Your task to perform on an android device: Go to settings Image 0: 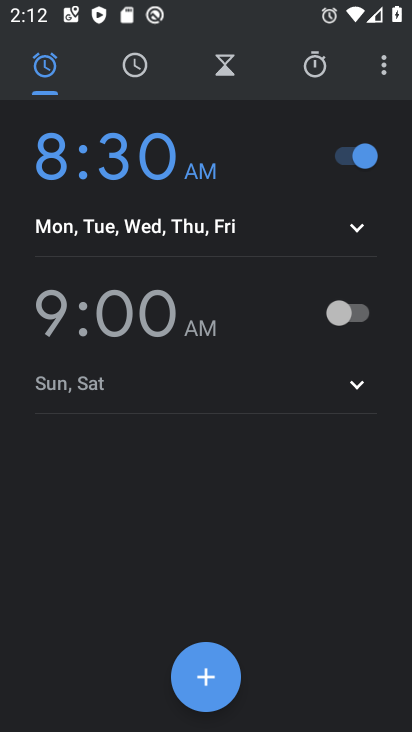
Step 0: press home button
Your task to perform on an android device: Go to settings Image 1: 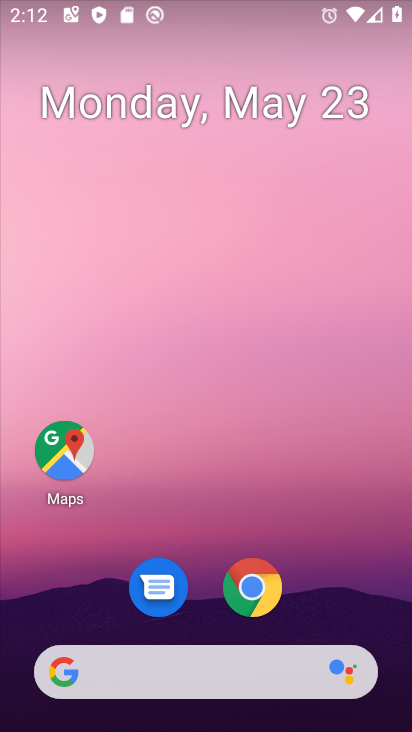
Step 1: drag from (351, 597) to (352, 325)
Your task to perform on an android device: Go to settings Image 2: 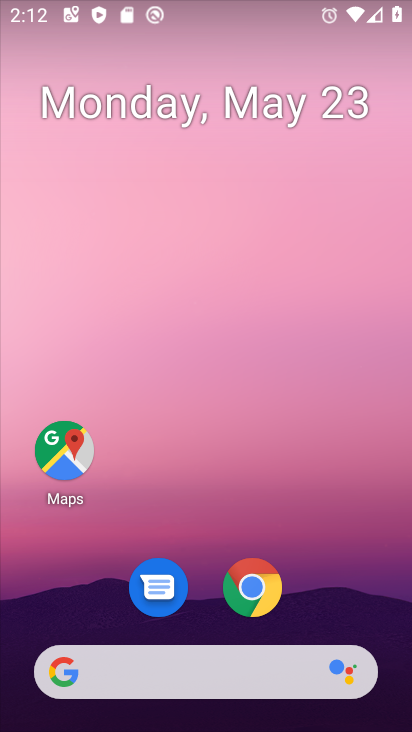
Step 2: drag from (358, 565) to (384, 0)
Your task to perform on an android device: Go to settings Image 3: 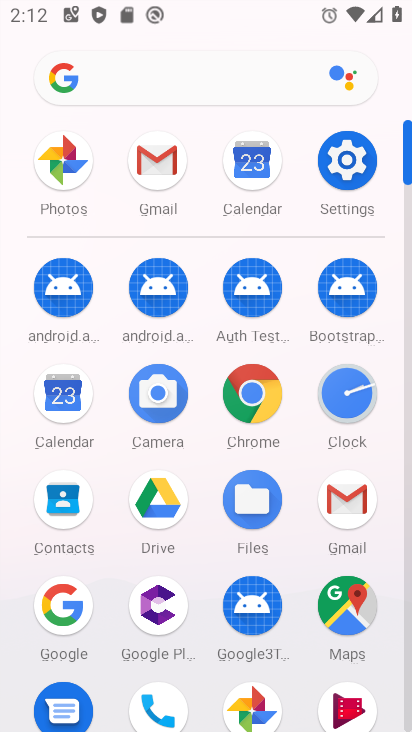
Step 3: click (353, 181)
Your task to perform on an android device: Go to settings Image 4: 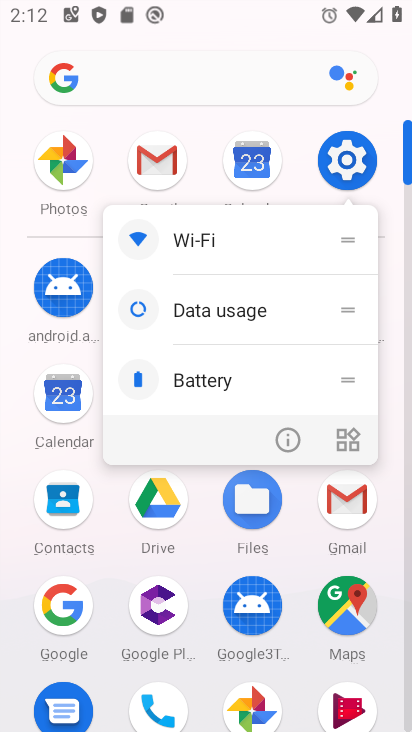
Step 4: click (353, 181)
Your task to perform on an android device: Go to settings Image 5: 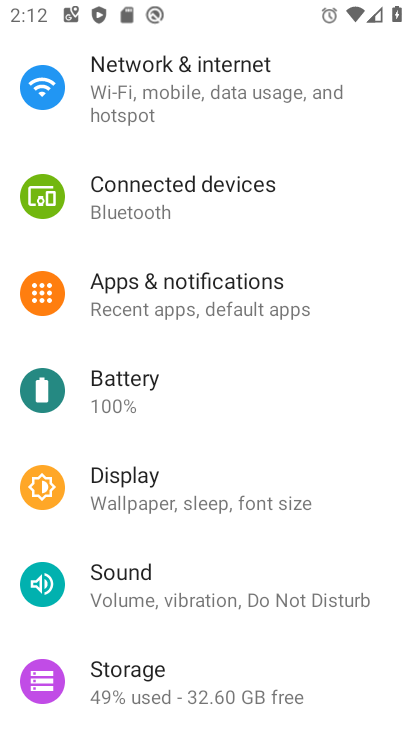
Step 5: click (186, 581)
Your task to perform on an android device: Go to settings Image 6: 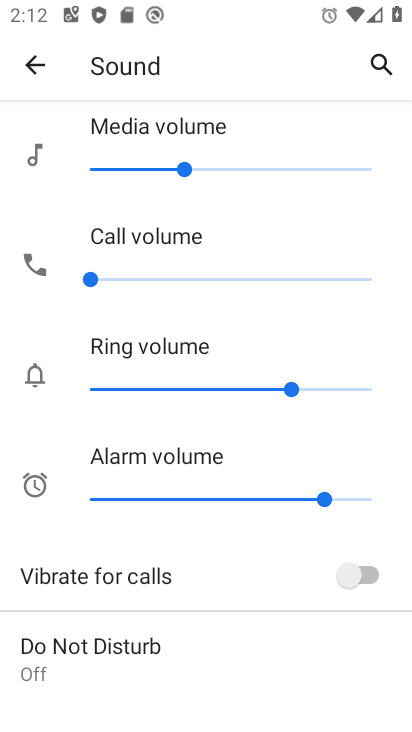
Step 6: task complete